Your task to perform on an android device: see creations saved in the google photos Image 0: 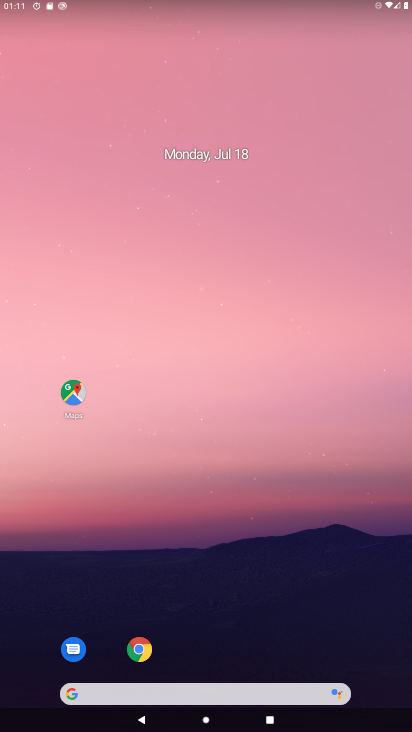
Step 0: drag from (127, 340) to (152, 98)
Your task to perform on an android device: see creations saved in the google photos Image 1: 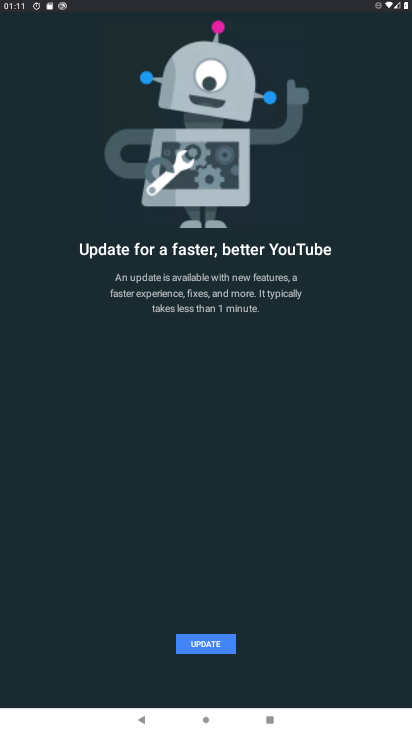
Step 1: press home button
Your task to perform on an android device: see creations saved in the google photos Image 2: 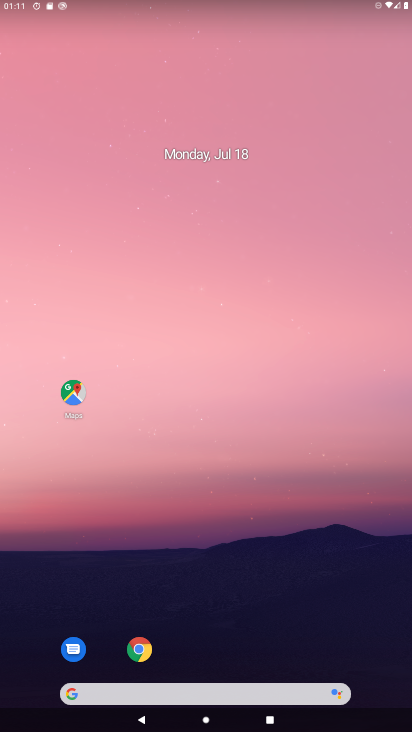
Step 2: drag from (79, 635) to (195, 141)
Your task to perform on an android device: see creations saved in the google photos Image 3: 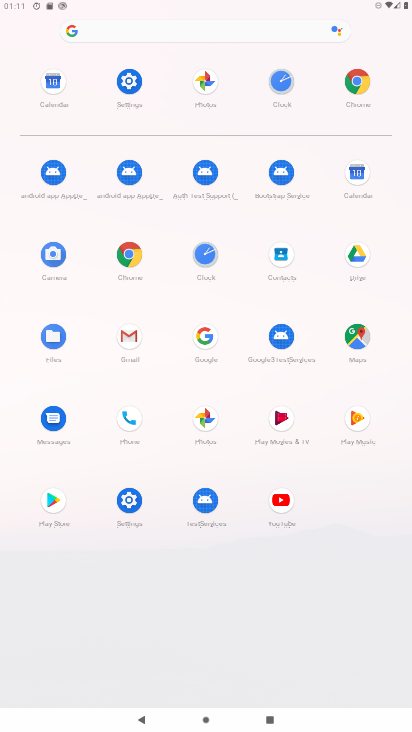
Step 3: click (202, 417)
Your task to perform on an android device: see creations saved in the google photos Image 4: 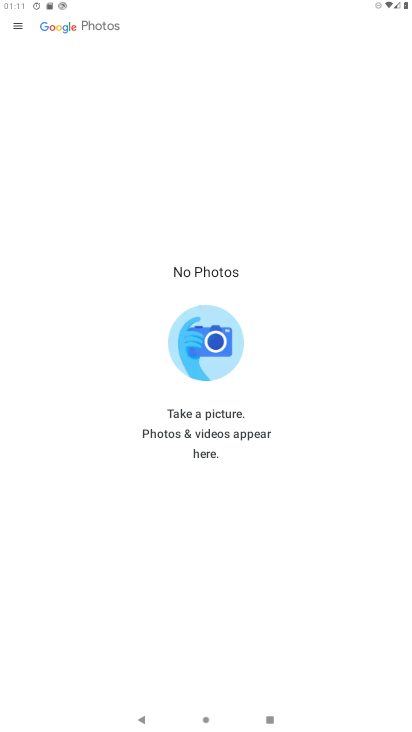
Step 4: task complete